Your task to perform on an android device: add a contact Image 0: 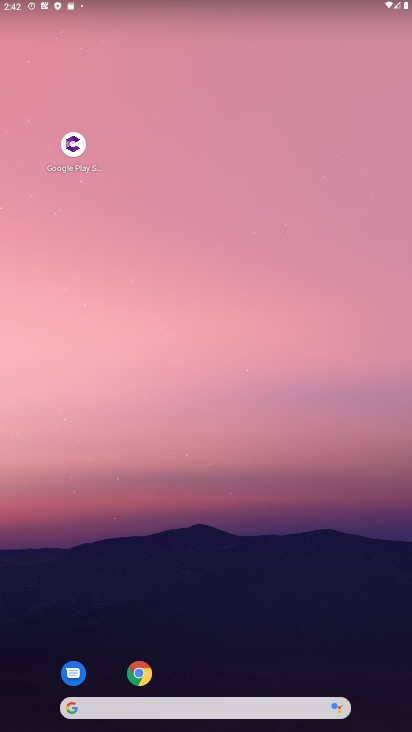
Step 0: drag from (196, 482) to (236, 42)
Your task to perform on an android device: add a contact Image 1: 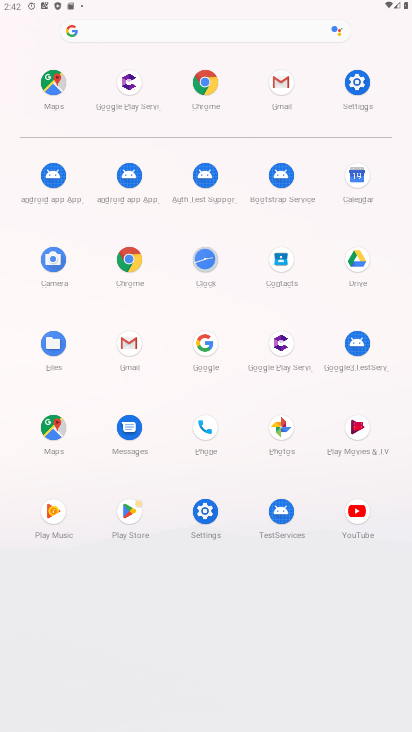
Step 1: click (285, 276)
Your task to perform on an android device: add a contact Image 2: 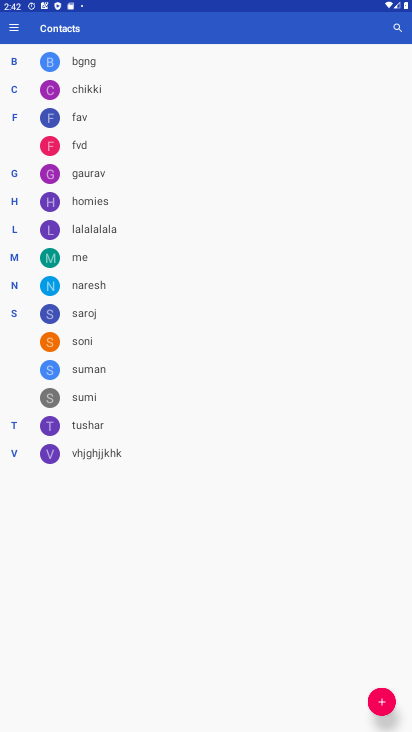
Step 2: click (379, 704)
Your task to perform on an android device: add a contact Image 3: 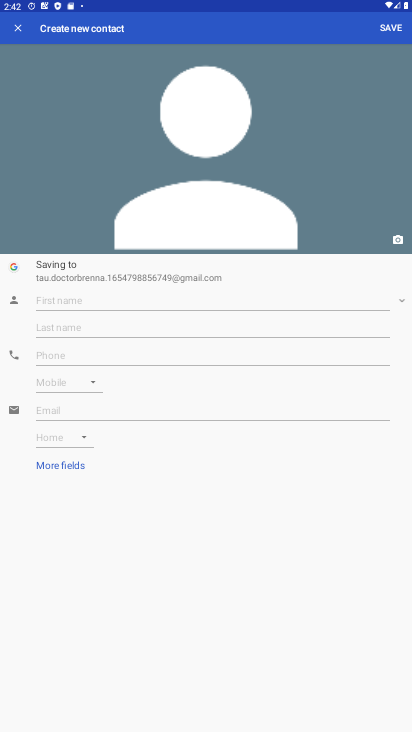
Step 3: click (135, 303)
Your task to perform on an android device: add a contact Image 4: 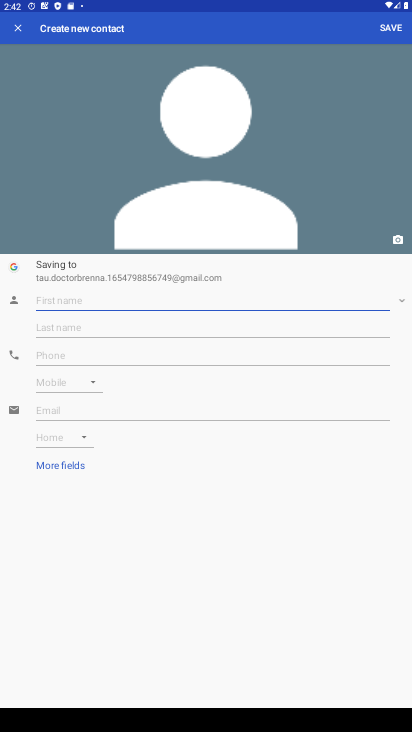
Step 4: type "afron"
Your task to perform on an android device: add a contact Image 5: 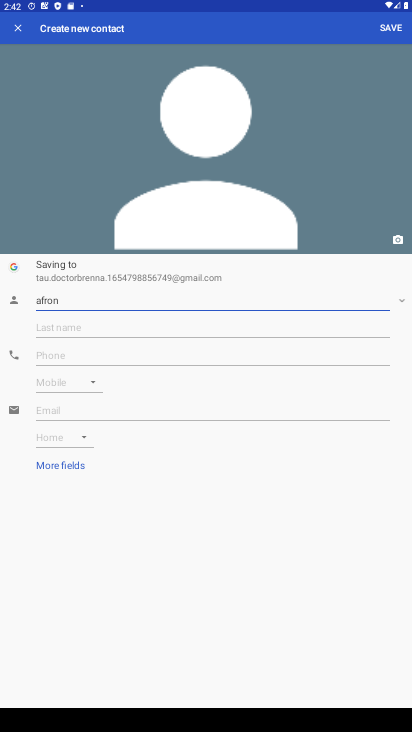
Step 5: click (391, 30)
Your task to perform on an android device: add a contact Image 6: 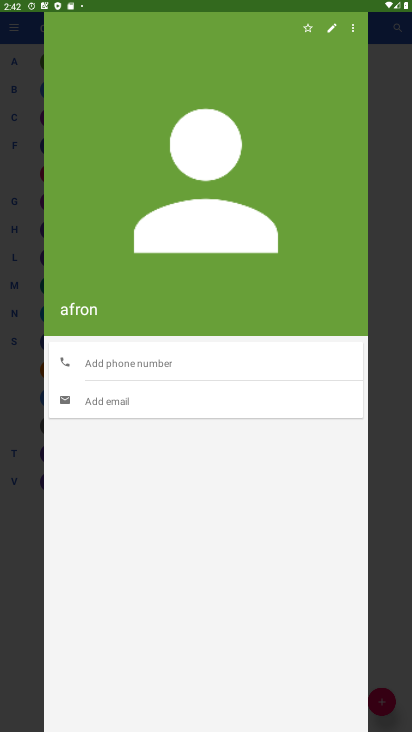
Step 6: task complete